Your task to perform on an android device: View the shopping cart on ebay. Image 0: 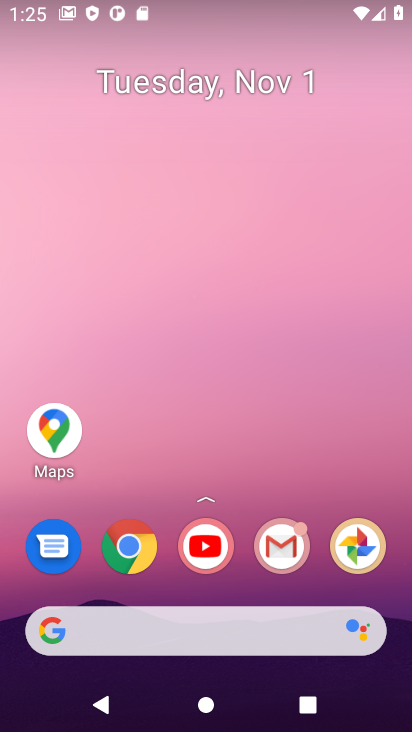
Step 0: click (50, 625)
Your task to perform on an android device: View the shopping cart on ebay. Image 1: 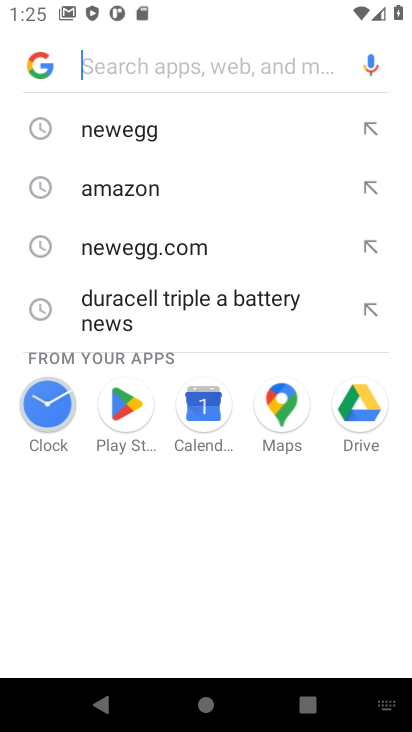
Step 1: type "ebay"
Your task to perform on an android device: View the shopping cart on ebay. Image 2: 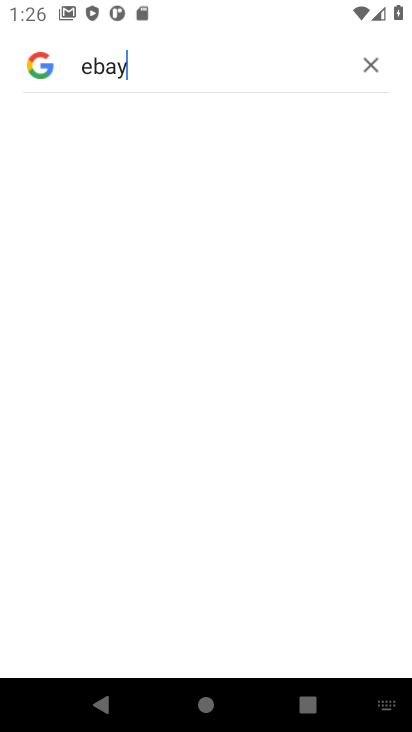
Step 2: task complete